Your task to perform on an android device: turn on bluetooth scan Image 0: 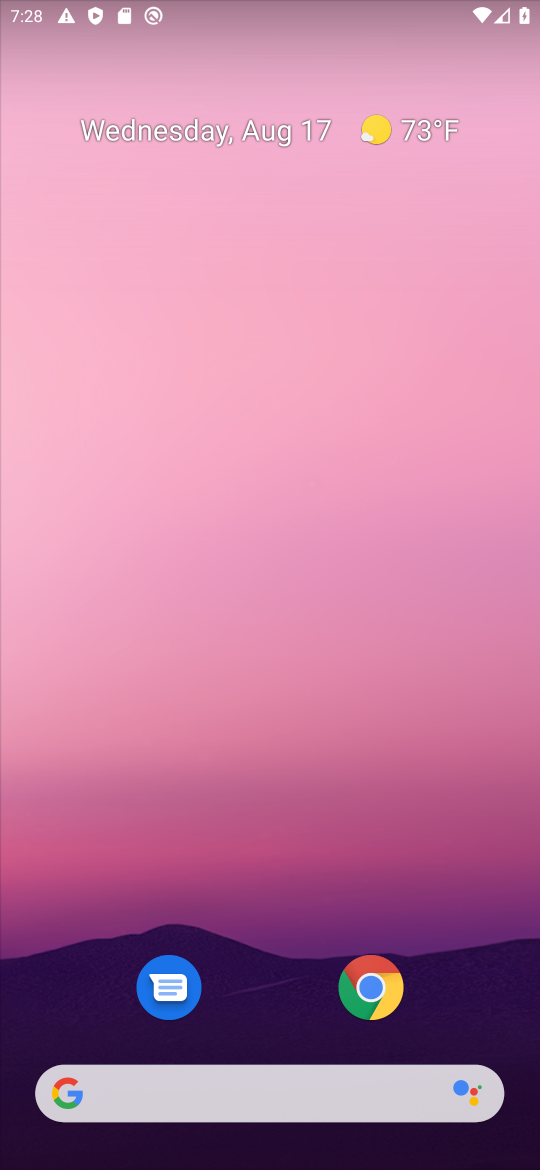
Step 0: drag from (499, 972) to (283, 12)
Your task to perform on an android device: turn on bluetooth scan Image 1: 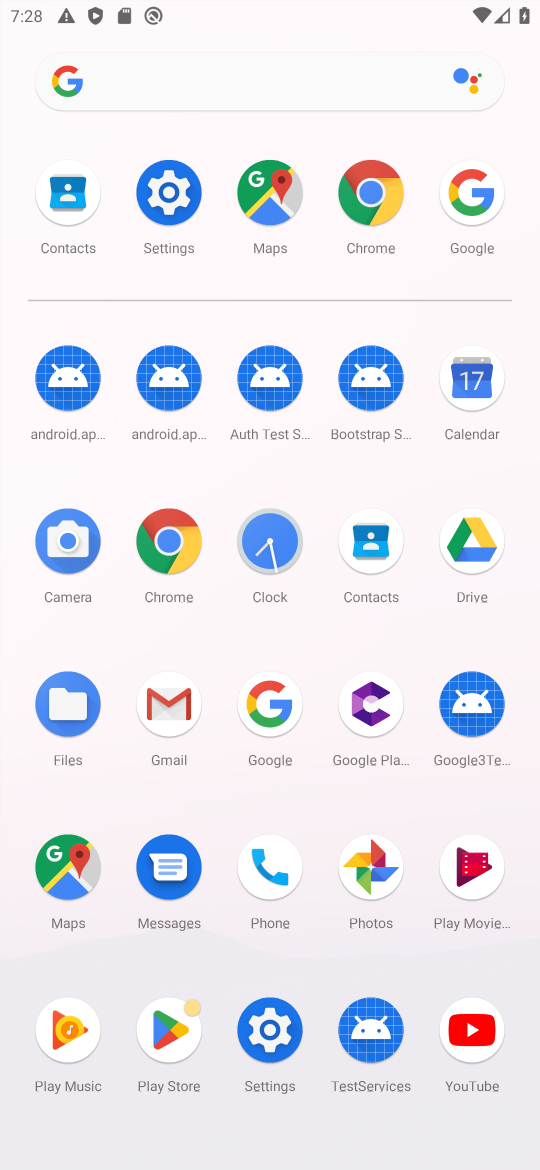
Step 1: click (160, 178)
Your task to perform on an android device: turn on bluetooth scan Image 2: 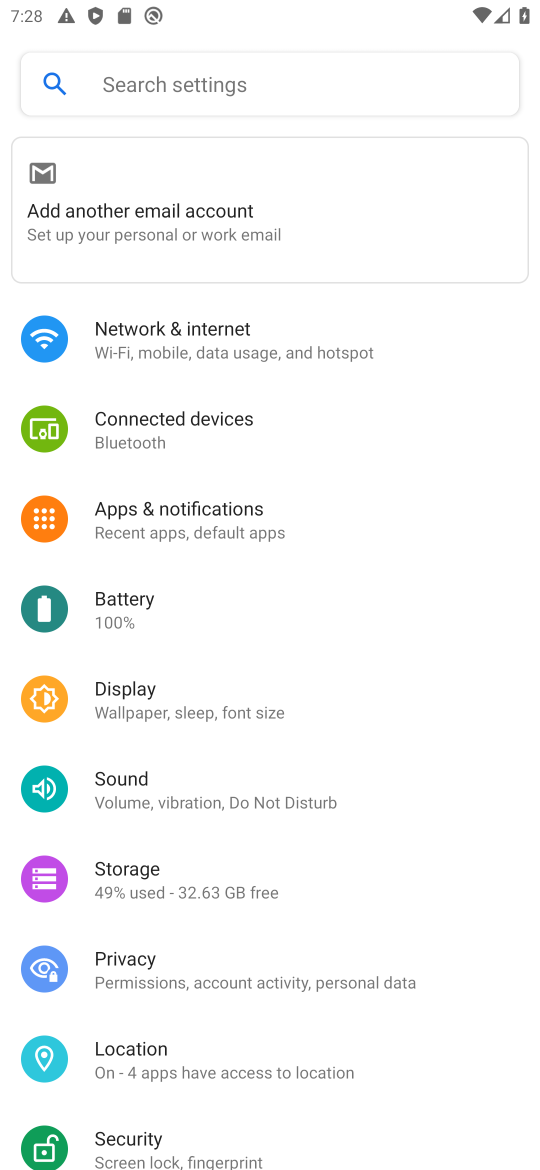
Step 2: click (141, 1076)
Your task to perform on an android device: turn on bluetooth scan Image 3: 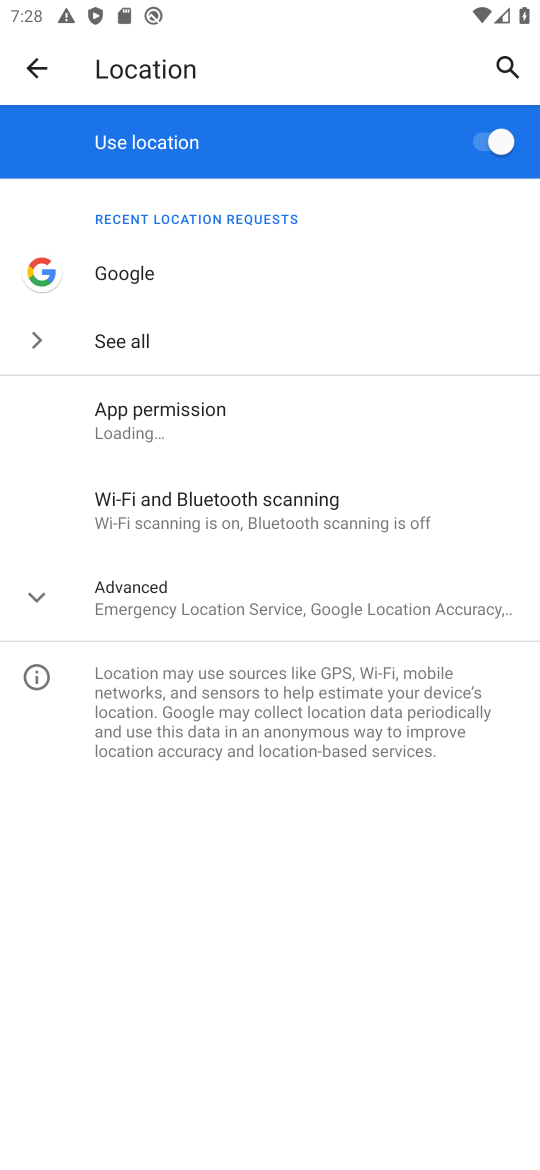
Step 3: click (225, 524)
Your task to perform on an android device: turn on bluetooth scan Image 4: 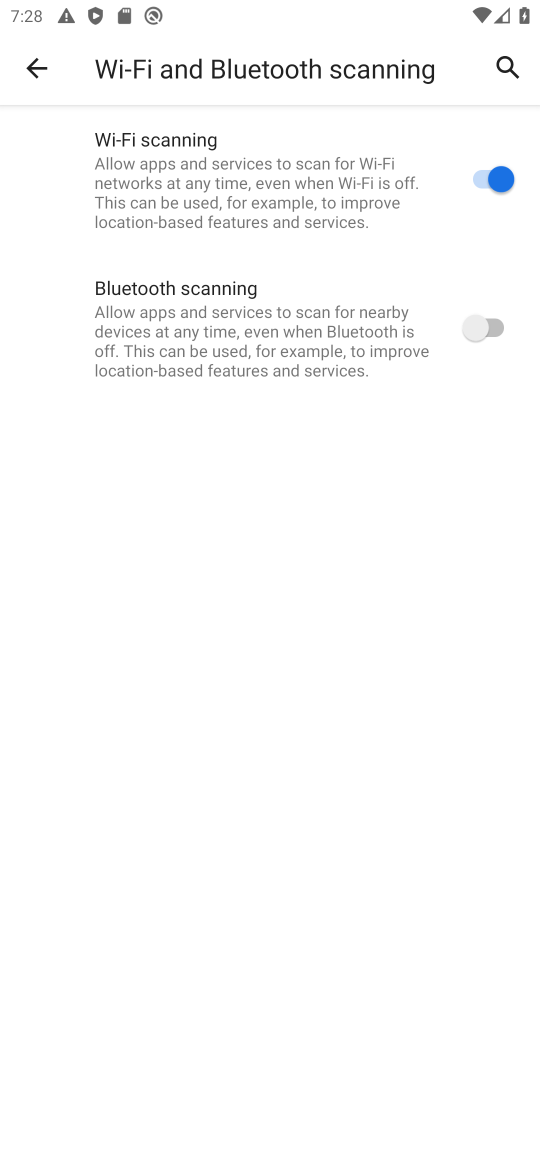
Step 4: click (470, 346)
Your task to perform on an android device: turn on bluetooth scan Image 5: 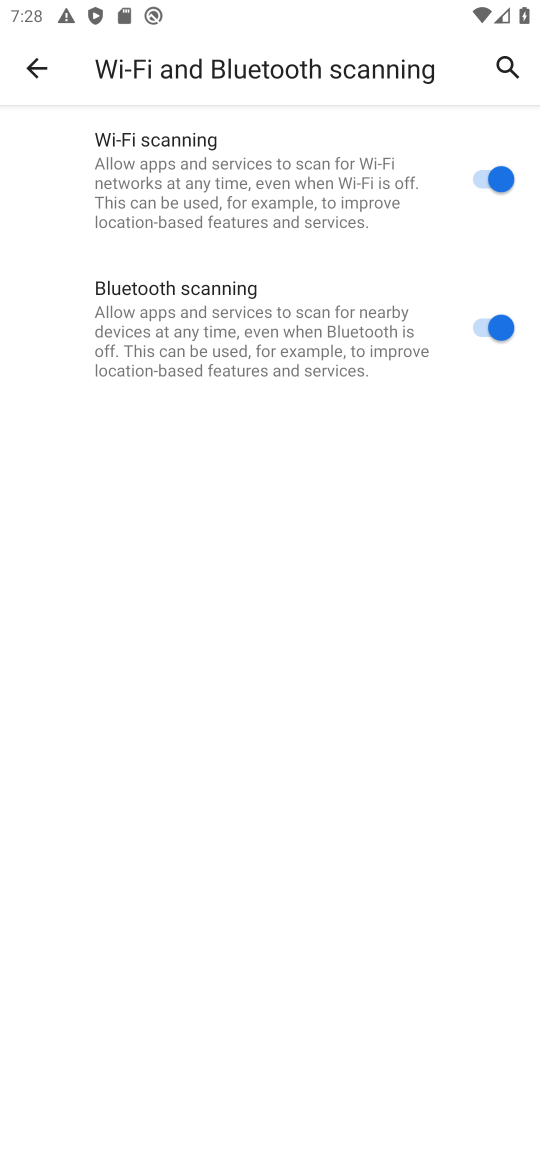
Step 5: task complete